Your task to perform on an android device: snooze an email in the gmail app Image 0: 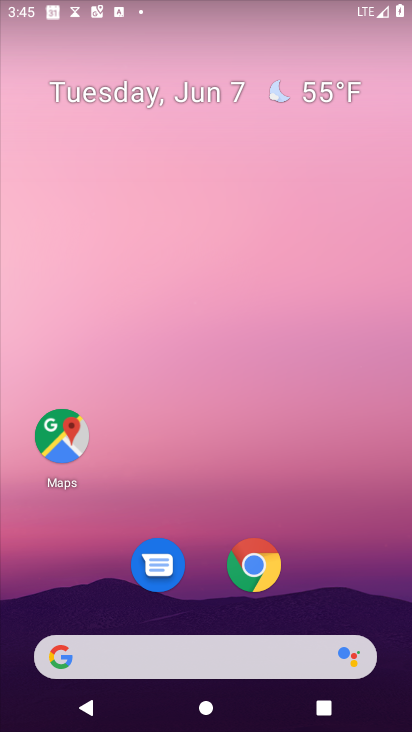
Step 0: drag from (271, 666) to (349, 44)
Your task to perform on an android device: snooze an email in the gmail app Image 1: 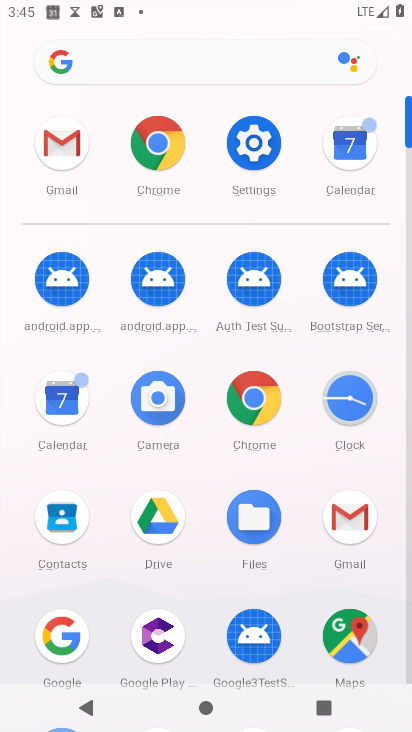
Step 1: click (360, 514)
Your task to perform on an android device: snooze an email in the gmail app Image 2: 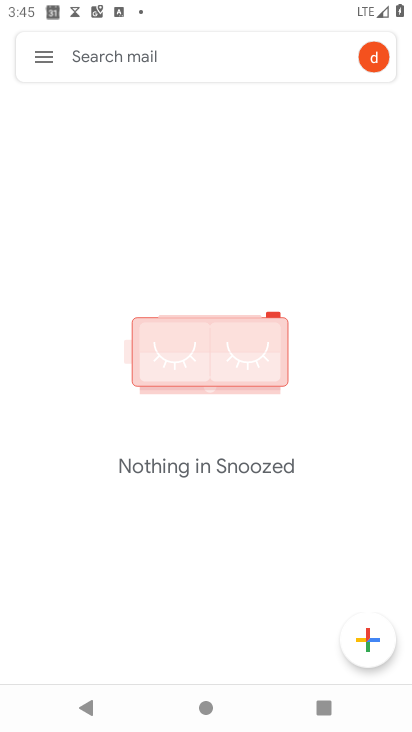
Step 2: click (45, 60)
Your task to perform on an android device: snooze an email in the gmail app Image 3: 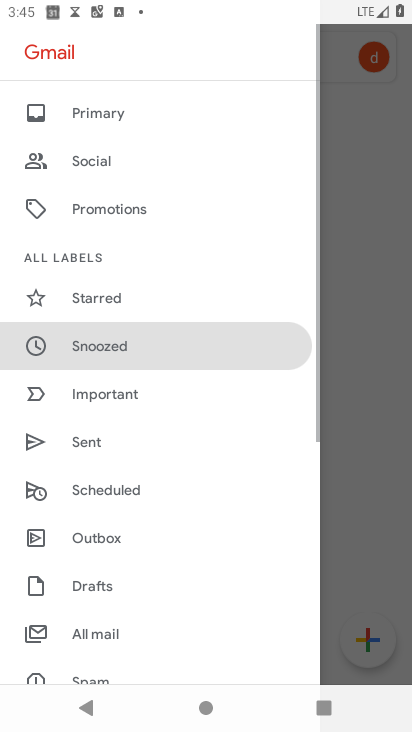
Step 3: click (140, 317)
Your task to perform on an android device: snooze an email in the gmail app Image 4: 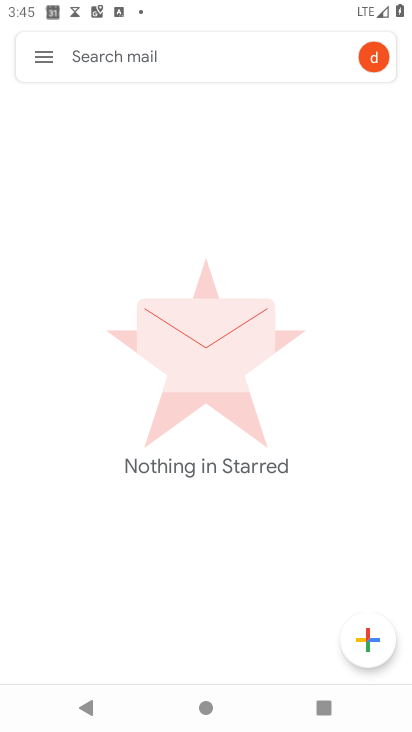
Step 4: task complete